Your task to perform on an android device: Open battery settings Image 0: 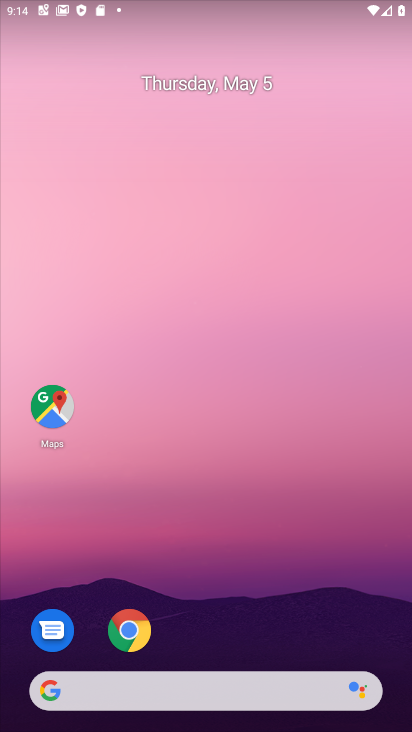
Step 0: drag from (204, 556) to (106, 86)
Your task to perform on an android device: Open battery settings Image 1: 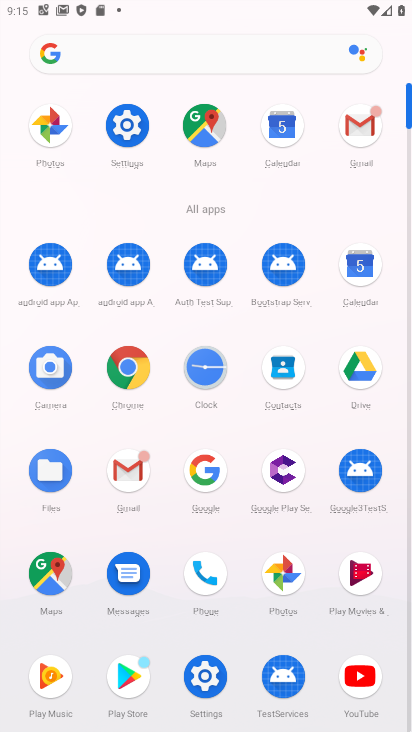
Step 1: click (208, 681)
Your task to perform on an android device: Open battery settings Image 2: 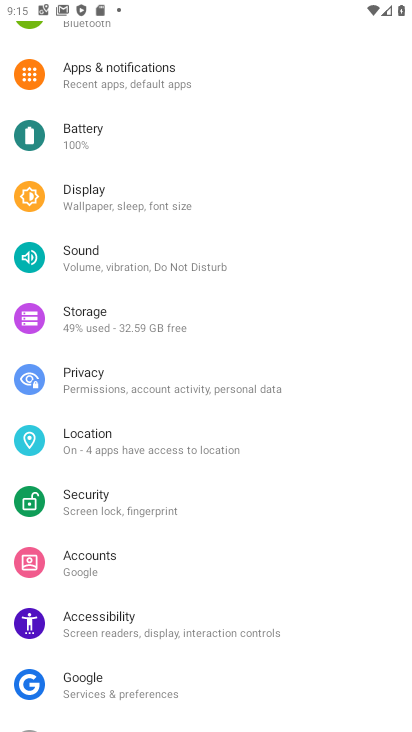
Step 2: click (83, 131)
Your task to perform on an android device: Open battery settings Image 3: 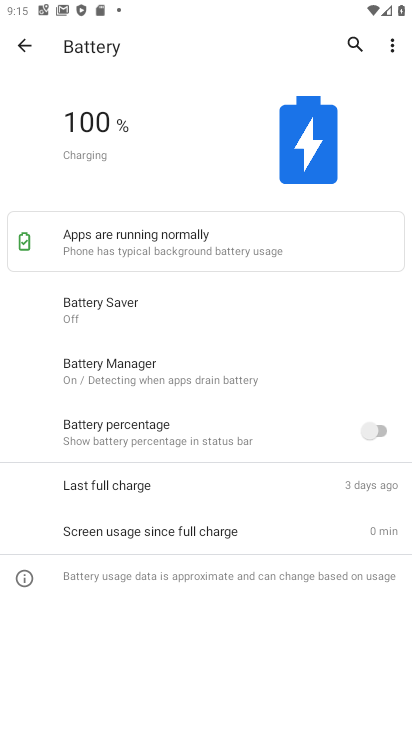
Step 3: task complete